Your task to perform on an android device: Open settings on Google Maps Image 0: 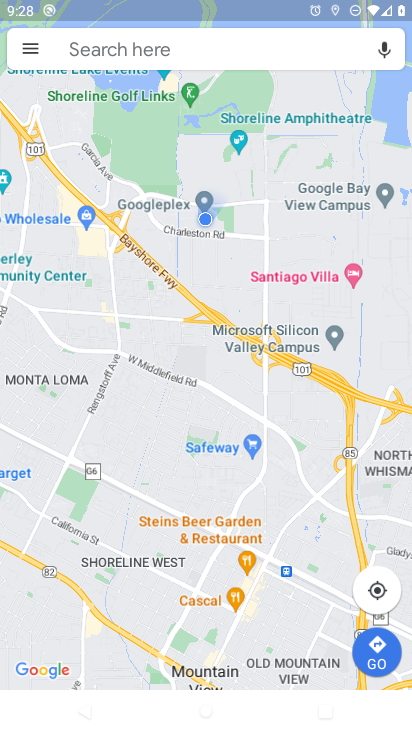
Step 0: click (112, 669)
Your task to perform on an android device: Open settings on Google Maps Image 1: 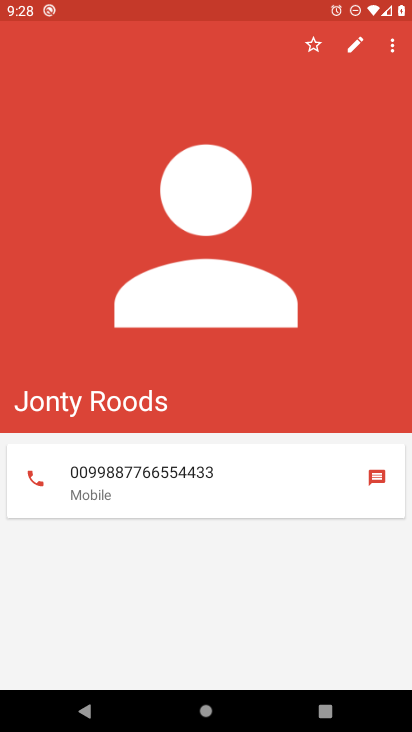
Step 1: press home button
Your task to perform on an android device: Open settings on Google Maps Image 2: 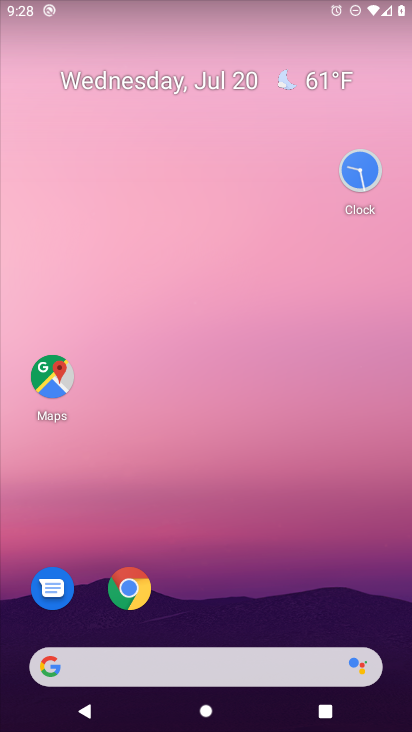
Step 2: click (44, 371)
Your task to perform on an android device: Open settings on Google Maps Image 3: 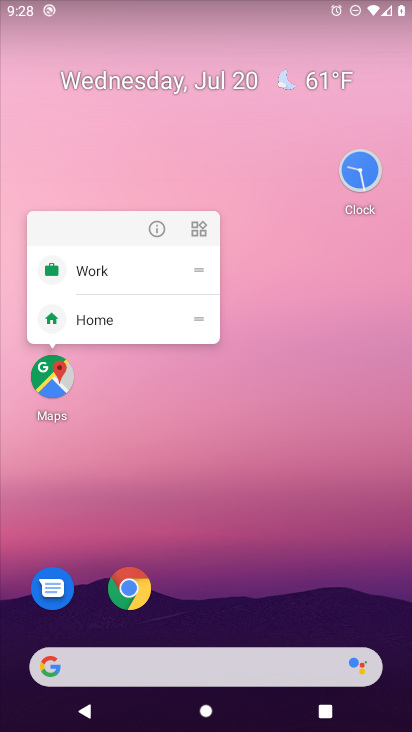
Step 3: click (56, 396)
Your task to perform on an android device: Open settings on Google Maps Image 4: 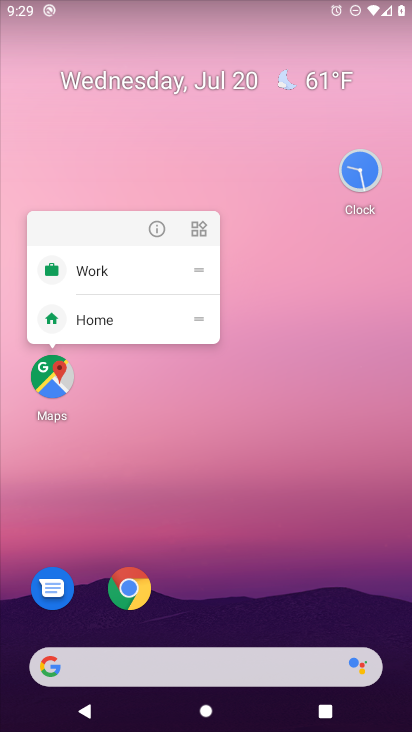
Step 4: click (49, 370)
Your task to perform on an android device: Open settings on Google Maps Image 5: 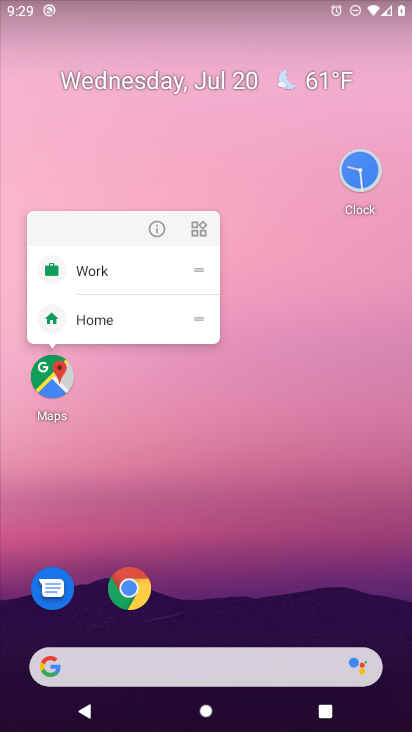
Step 5: click (49, 380)
Your task to perform on an android device: Open settings on Google Maps Image 6: 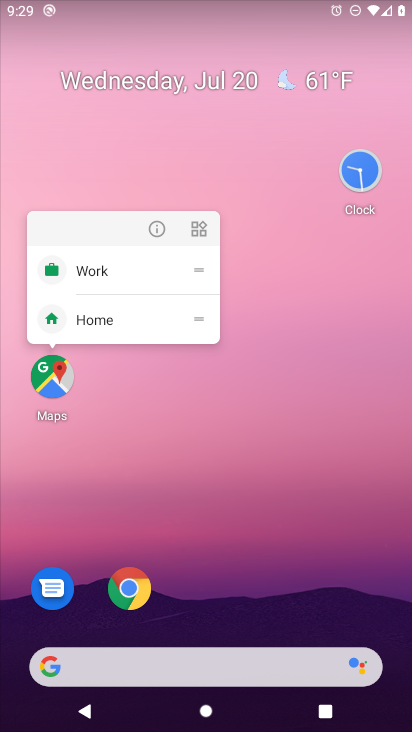
Step 6: click (52, 365)
Your task to perform on an android device: Open settings on Google Maps Image 7: 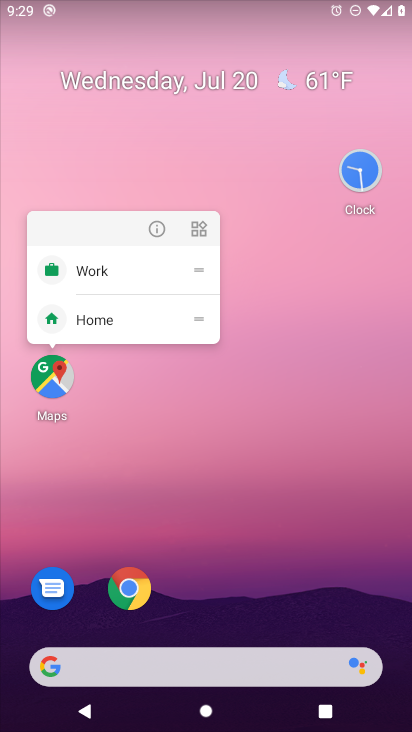
Step 7: click (44, 401)
Your task to perform on an android device: Open settings on Google Maps Image 8: 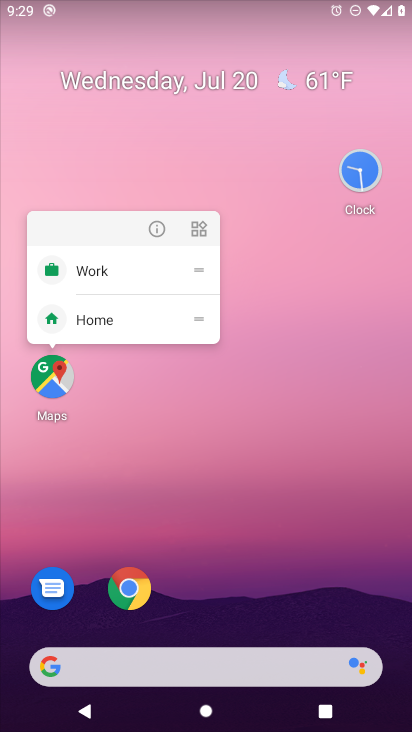
Step 8: task complete